Your task to perform on an android device: turn off improve location accuracy Image 0: 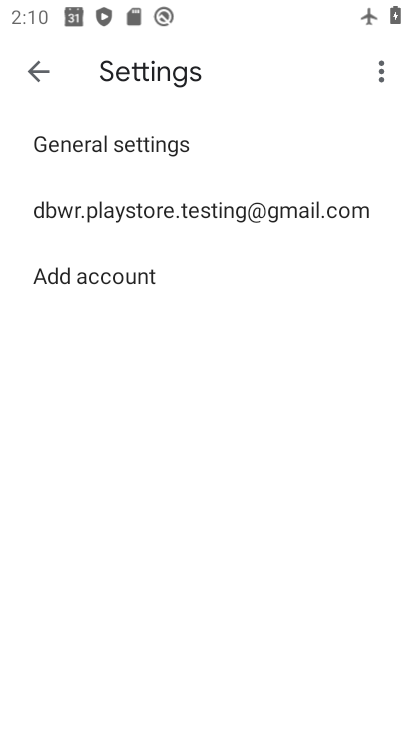
Step 0: click (26, 81)
Your task to perform on an android device: turn off improve location accuracy Image 1: 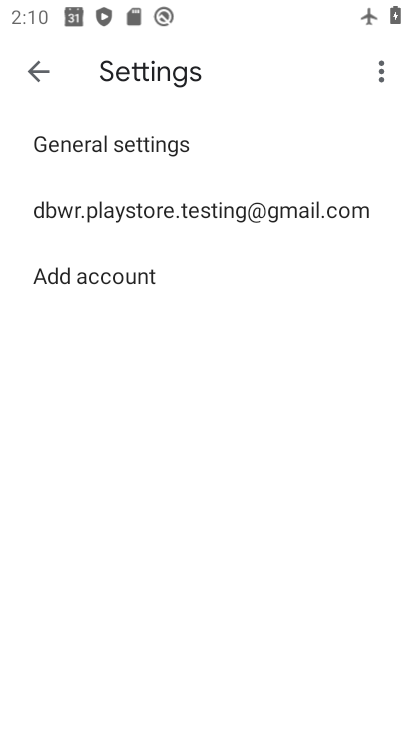
Step 1: click (38, 71)
Your task to perform on an android device: turn off improve location accuracy Image 2: 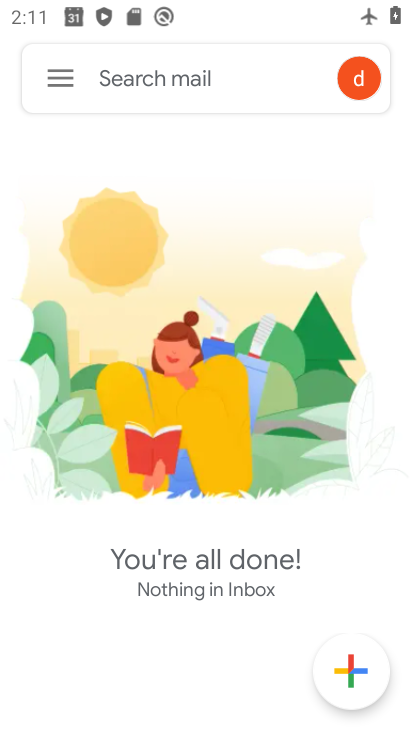
Step 2: press home button
Your task to perform on an android device: turn off improve location accuracy Image 3: 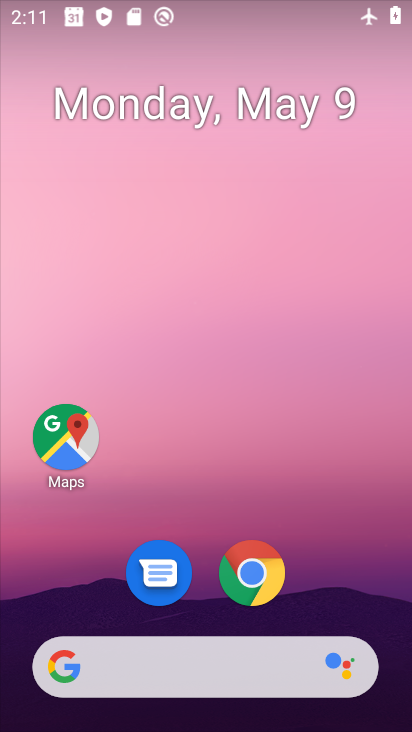
Step 3: drag from (358, 637) to (272, 14)
Your task to perform on an android device: turn off improve location accuracy Image 4: 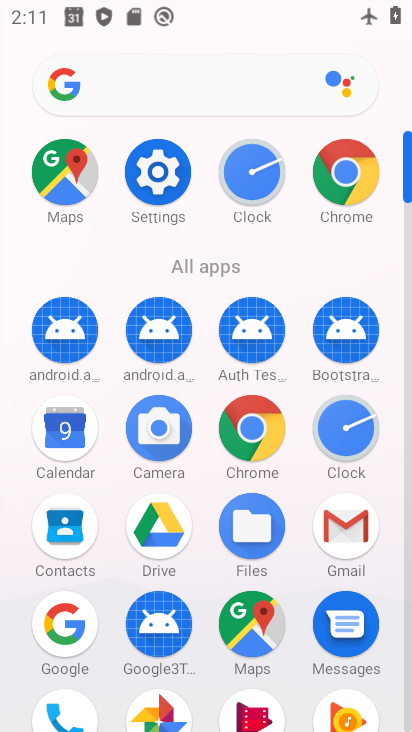
Step 4: click (155, 182)
Your task to perform on an android device: turn off improve location accuracy Image 5: 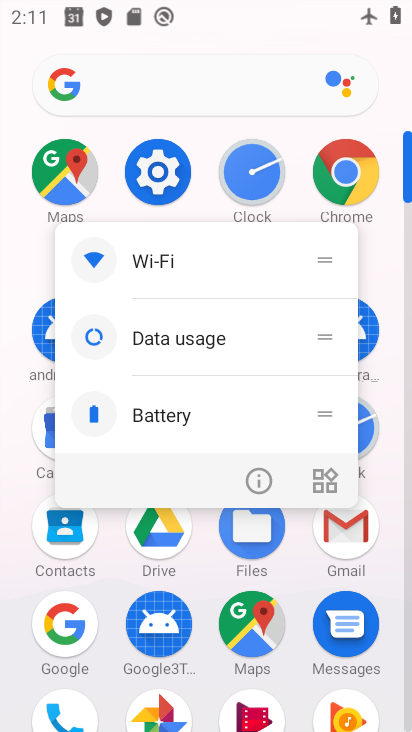
Step 5: click (155, 182)
Your task to perform on an android device: turn off improve location accuracy Image 6: 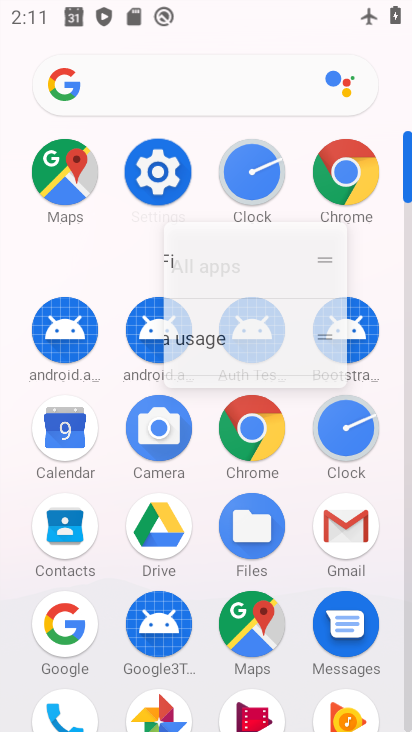
Step 6: click (155, 182)
Your task to perform on an android device: turn off improve location accuracy Image 7: 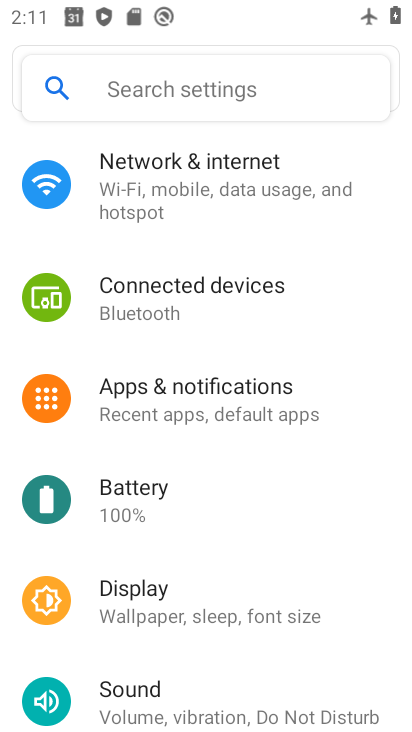
Step 7: drag from (210, 556) to (229, 215)
Your task to perform on an android device: turn off improve location accuracy Image 8: 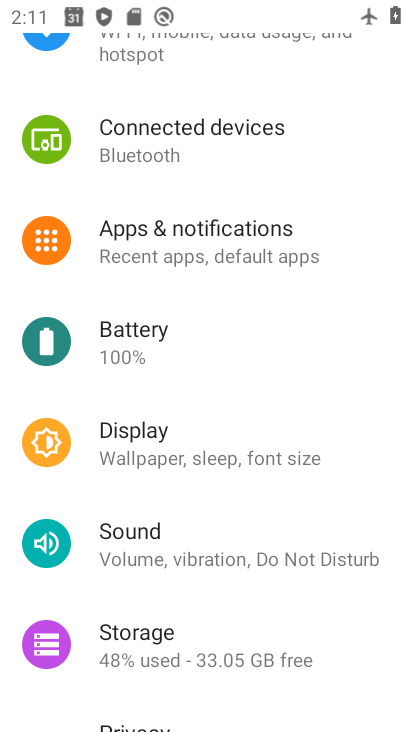
Step 8: drag from (226, 583) to (192, 79)
Your task to perform on an android device: turn off improve location accuracy Image 9: 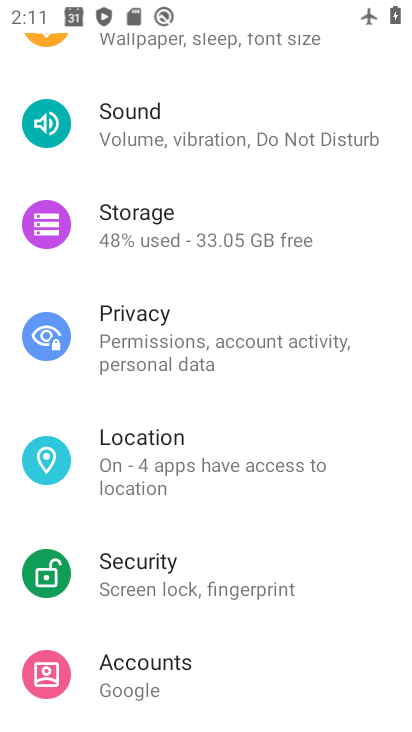
Step 9: click (169, 454)
Your task to perform on an android device: turn off improve location accuracy Image 10: 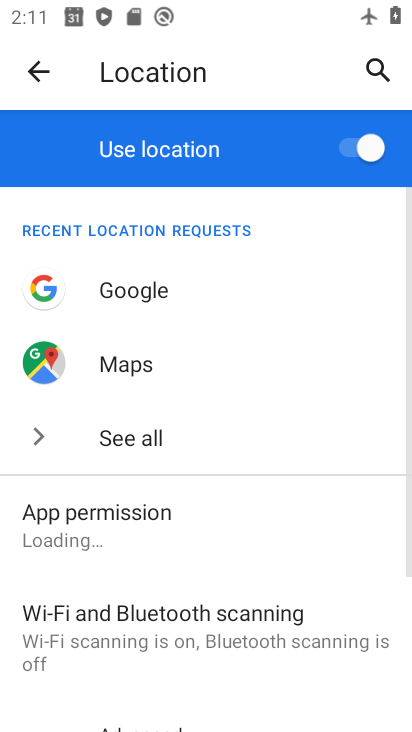
Step 10: drag from (151, 574) to (133, 254)
Your task to perform on an android device: turn off improve location accuracy Image 11: 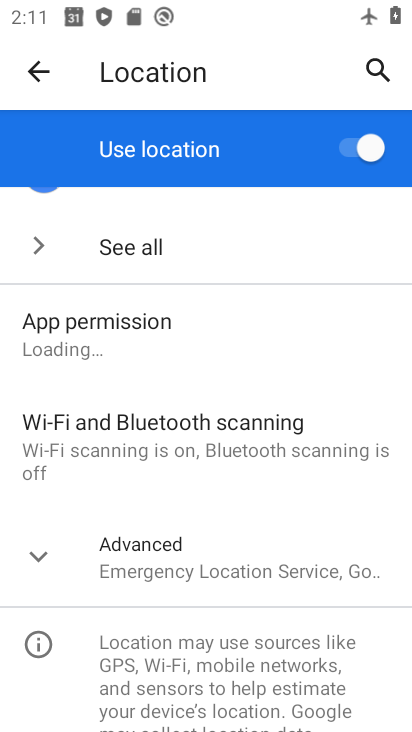
Step 11: click (58, 340)
Your task to perform on an android device: turn off improve location accuracy Image 12: 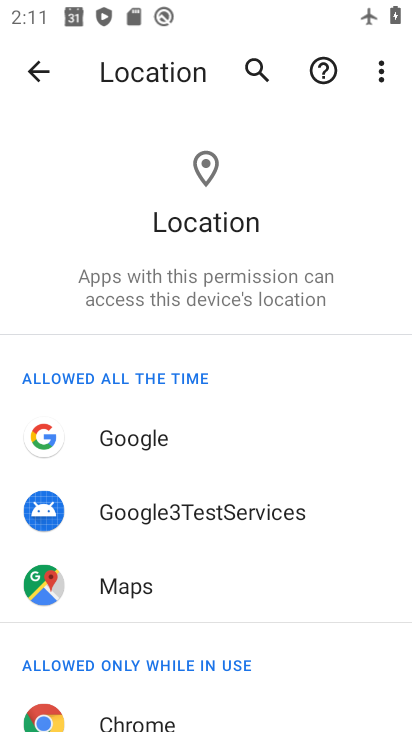
Step 12: drag from (145, 507) to (78, 0)
Your task to perform on an android device: turn off improve location accuracy Image 13: 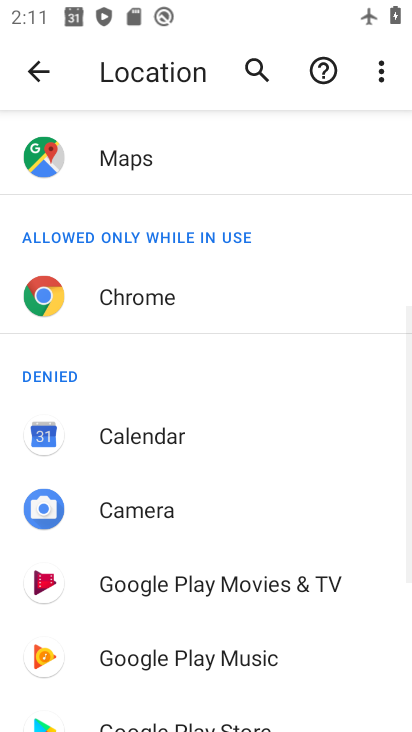
Step 13: drag from (172, 400) to (182, 66)
Your task to perform on an android device: turn off improve location accuracy Image 14: 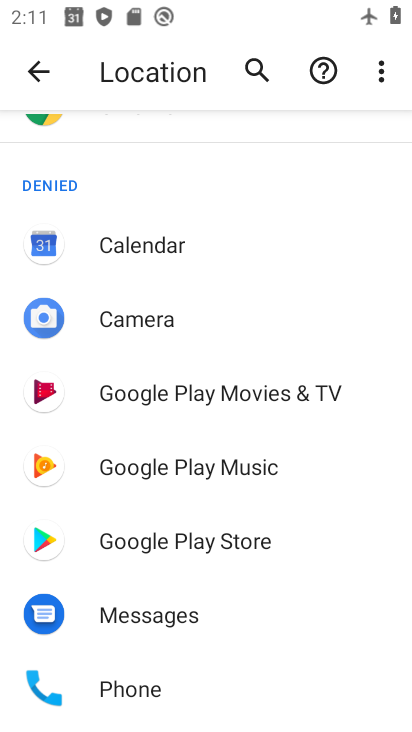
Step 14: drag from (136, 189) to (199, 681)
Your task to perform on an android device: turn off improve location accuracy Image 15: 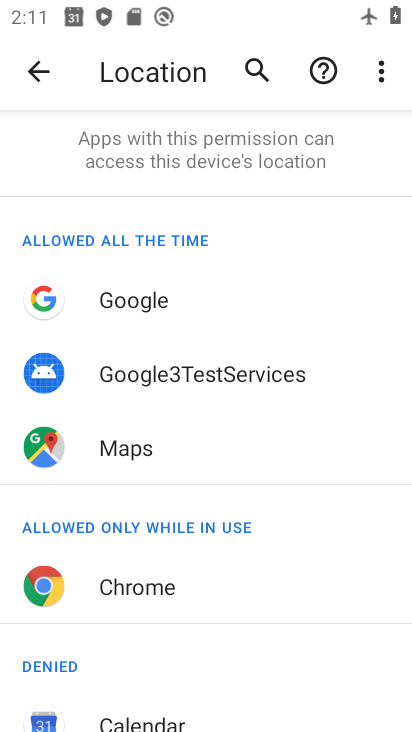
Step 15: click (25, 60)
Your task to perform on an android device: turn off improve location accuracy Image 16: 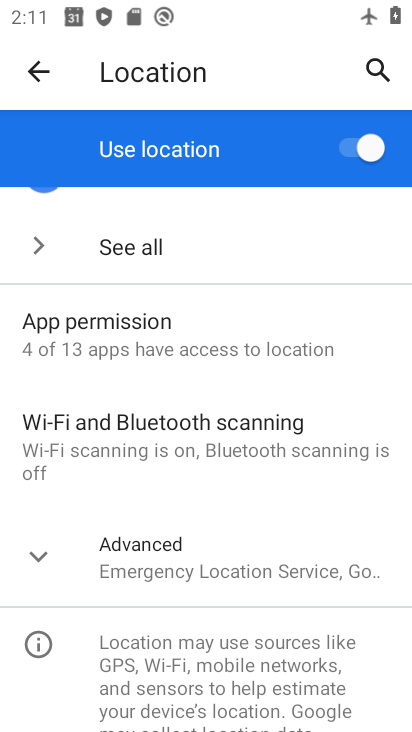
Step 16: click (194, 564)
Your task to perform on an android device: turn off improve location accuracy Image 17: 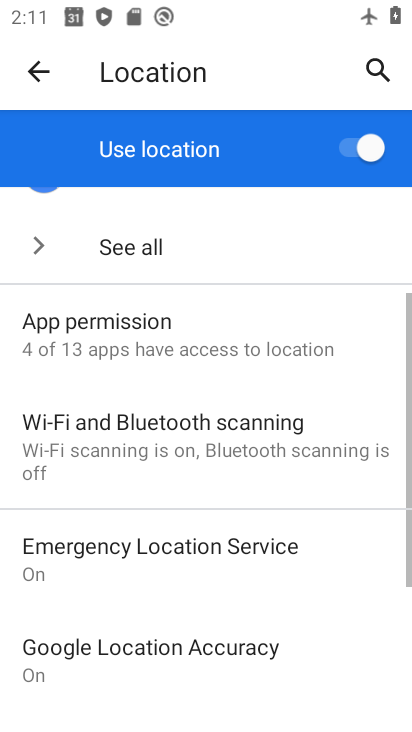
Step 17: drag from (182, 642) to (167, 124)
Your task to perform on an android device: turn off improve location accuracy Image 18: 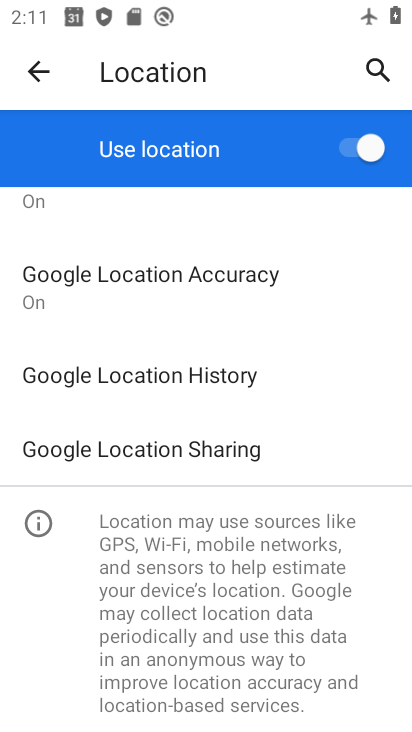
Step 18: click (105, 271)
Your task to perform on an android device: turn off improve location accuracy Image 19: 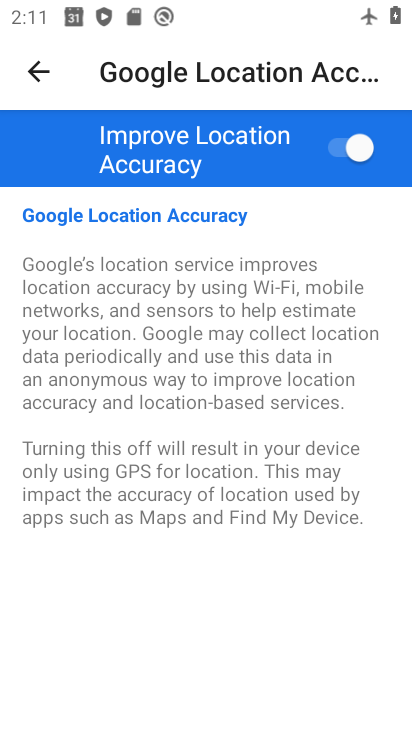
Step 19: click (365, 150)
Your task to perform on an android device: turn off improve location accuracy Image 20: 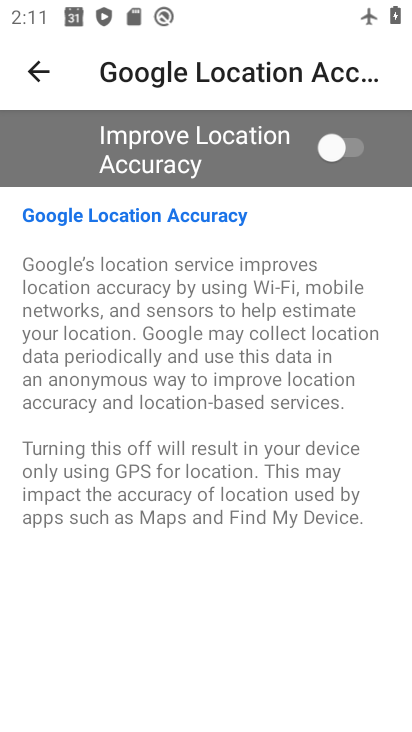
Step 20: task complete